Your task to perform on an android device: change text size in settings app Image 0: 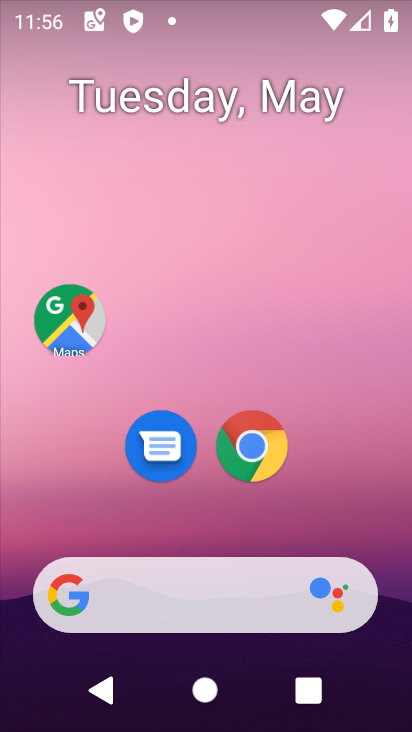
Step 0: drag from (226, 724) to (229, 90)
Your task to perform on an android device: change text size in settings app Image 1: 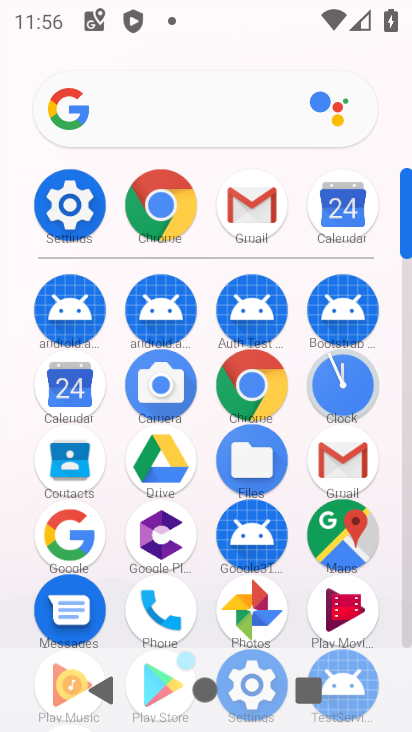
Step 1: click (73, 205)
Your task to perform on an android device: change text size in settings app Image 2: 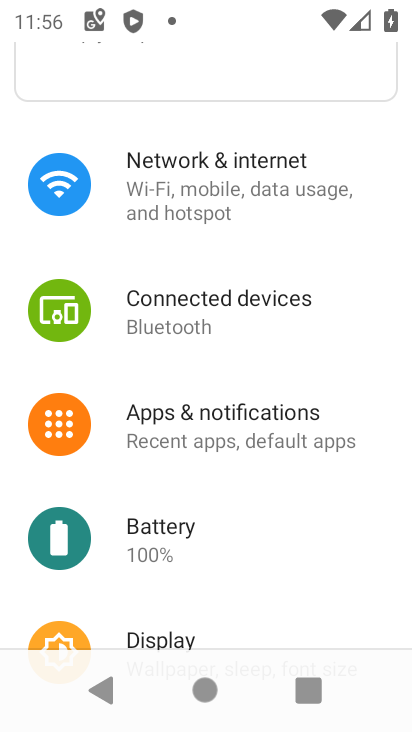
Step 2: drag from (201, 600) to (245, 190)
Your task to perform on an android device: change text size in settings app Image 3: 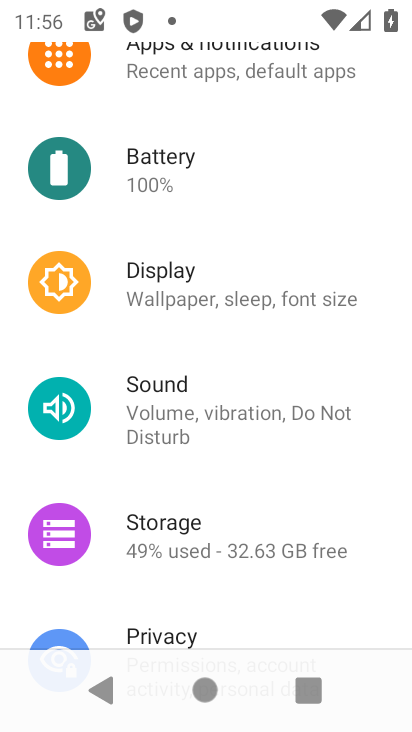
Step 3: drag from (227, 591) to (256, 187)
Your task to perform on an android device: change text size in settings app Image 4: 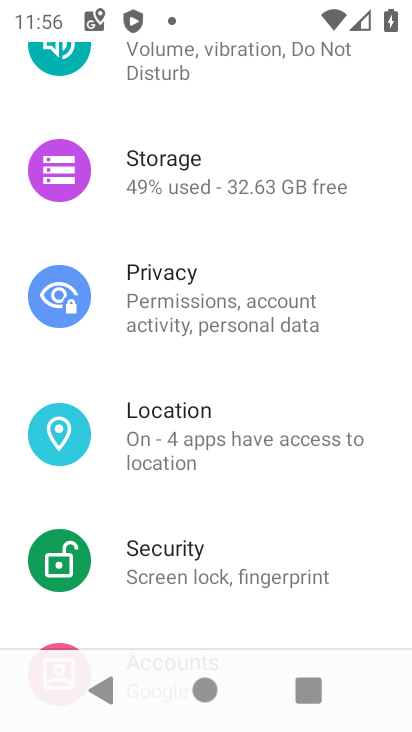
Step 4: drag from (231, 115) to (255, 547)
Your task to perform on an android device: change text size in settings app Image 5: 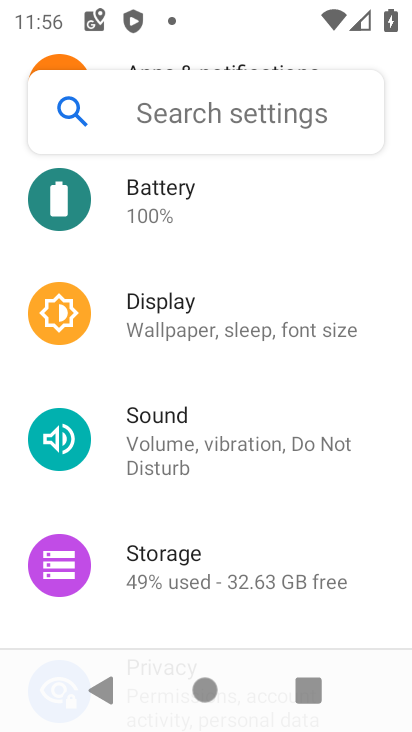
Step 5: drag from (249, 231) to (238, 460)
Your task to perform on an android device: change text size in settings app Image 6: 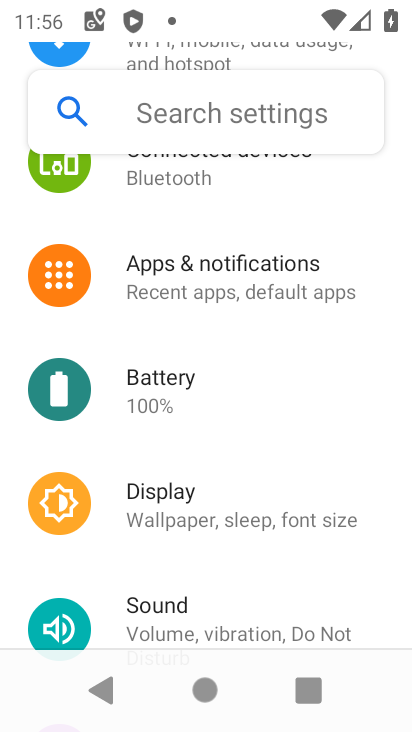
Step 6: click (256, 515)
Your task to perform on an android device: change text size in settings app Image 7: 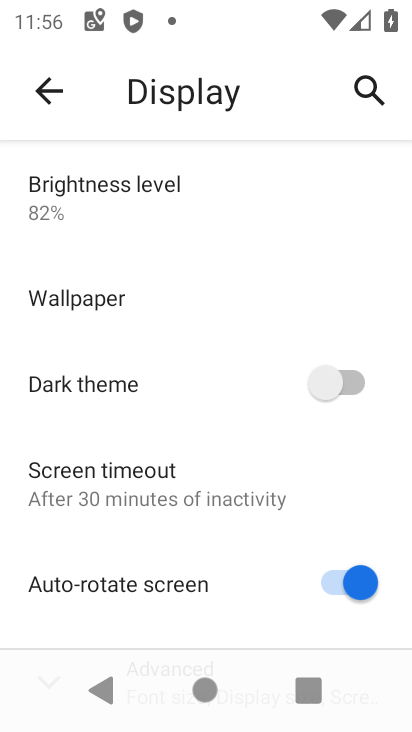
Step 7: drag from (150, 610) to (178, 211)
Your task to perform on an android device: change text size in settings app Image 8: 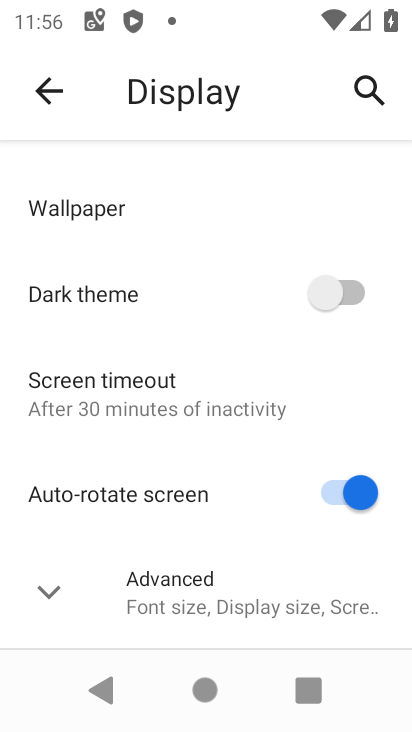
Step 8: click (168, 592)
Your task to perform on an android device: change text size in settings app Image 9: 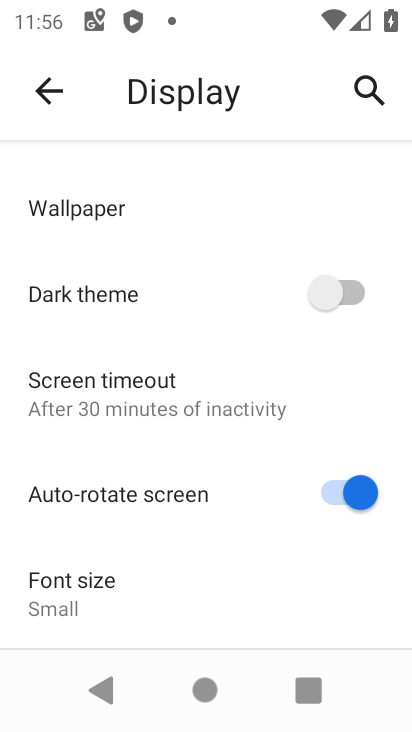
Step 9: drag from (142, 605) to (159, 261)
Your task to perform on an android device: change text size in settings app Image 10: 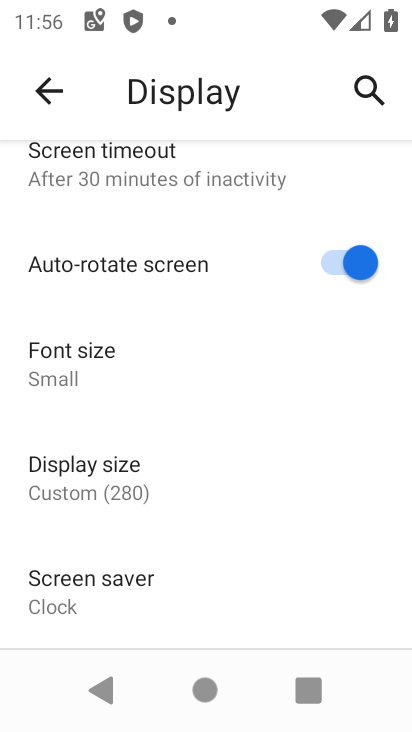
Step 10: click (70, 364)
Your task to perform on an android device: change text size in settings app Image 11: 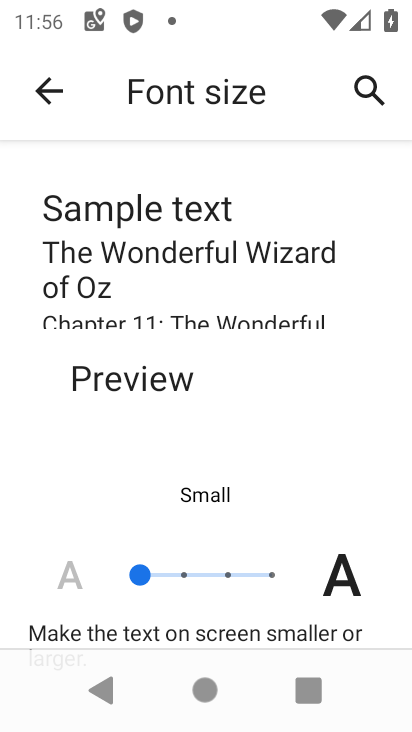
Step 11: click (229, 573)
Your task to perform on an android device: change text size in settings app Image 12: 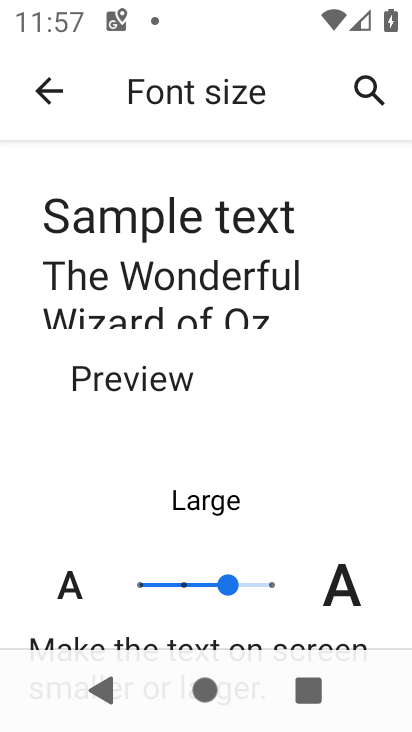
Step 12: task complete